Your task to perform on an android device: turn on priority inbox in the gmail app Image 0: 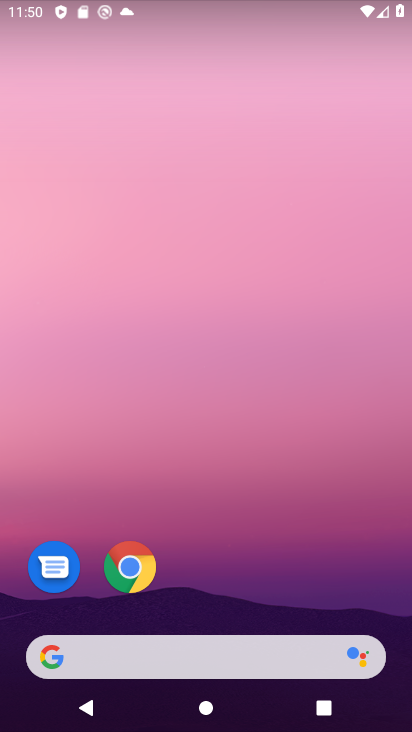
Step 0: drag from (204, 671) to (185, 16)
Your task to perform on an android device: turn on priority inbox in the gmail app Image 1: 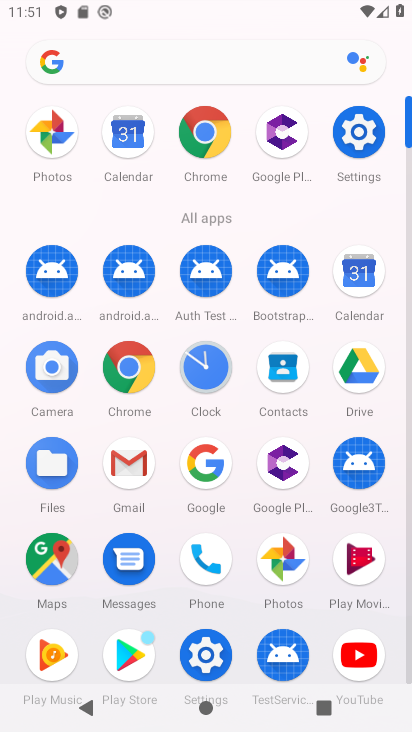
Step 1: click (138, 476)
Your task to perform on an android device: turn on priority inbox in the gmail app Image 2: 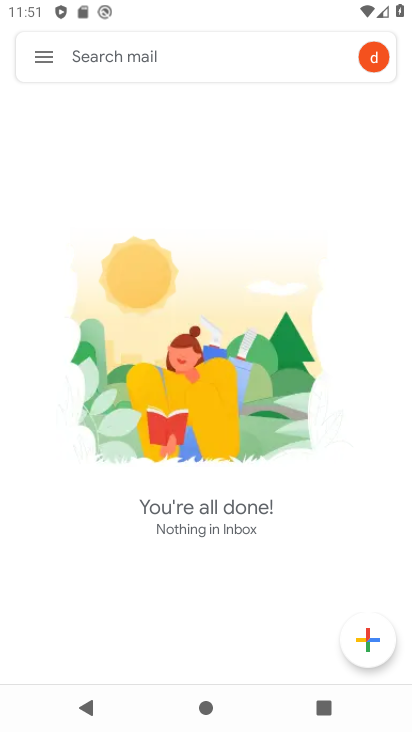
Step 2: click (57, 65)
Your task to perform on an android device: turn on priority inbox in the gmail app Image 3: 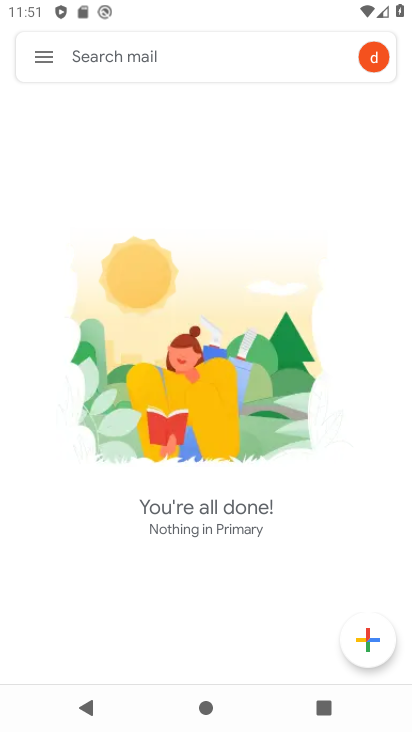
Step 3: click (43, 55)
Your task to perform on an android device: turn on priority inbox in the gmail app Image 4: 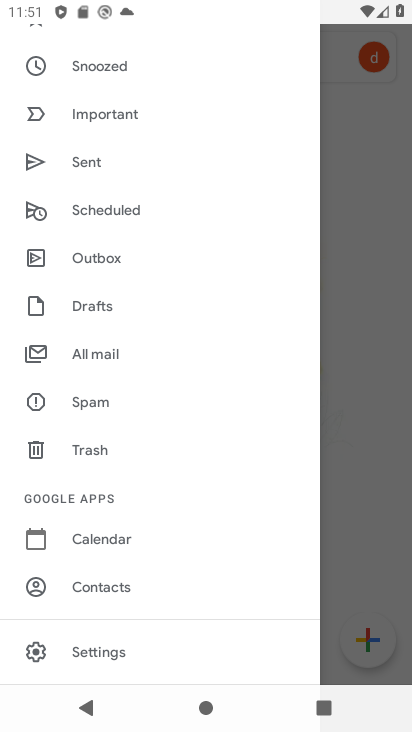
Step 4: click (92, 645)
Your task to perform on an android device: turn on priority inbox in the gmail app Image 5: 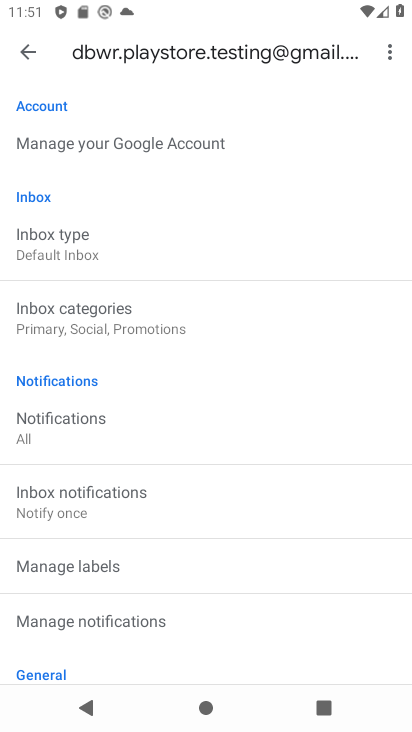
Step 5: click (102, 253)
Your task to perform on an android device: turn on priority inbox in the gmail app Image 6: 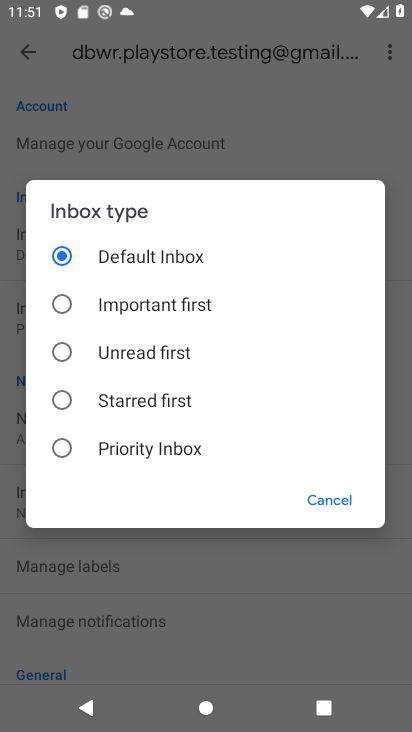
Step 6: click (138, 452)
Your task to perform on an android device: turn on priority inbox in the gmail app Image 7: 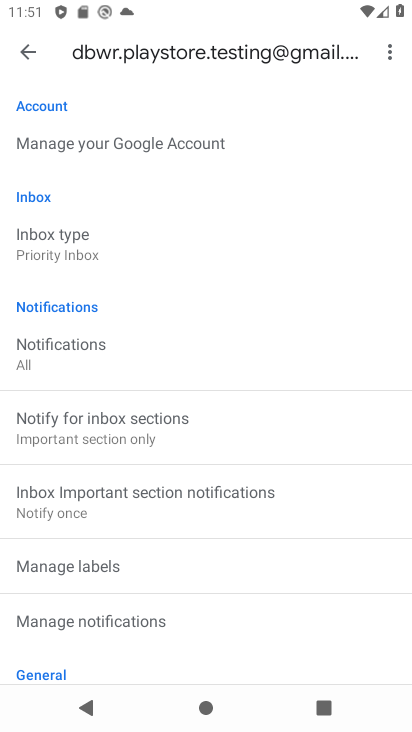
Step 7: task complete